Your task to perform on an android device: Go to internet settings Image 0: 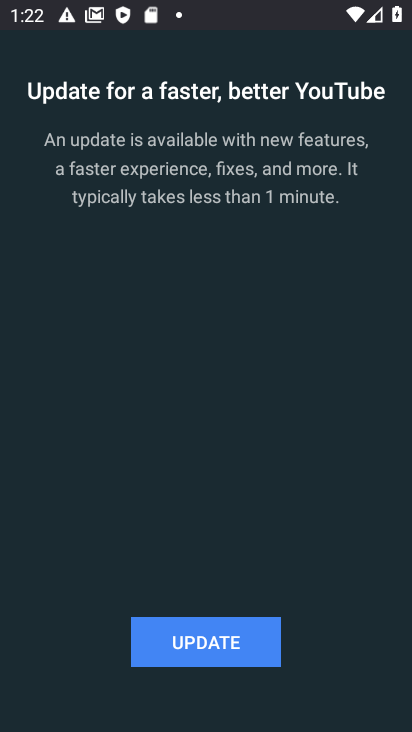
Step 0: press home button
Your task to perform on an android device: Go to internet settings Image 1: 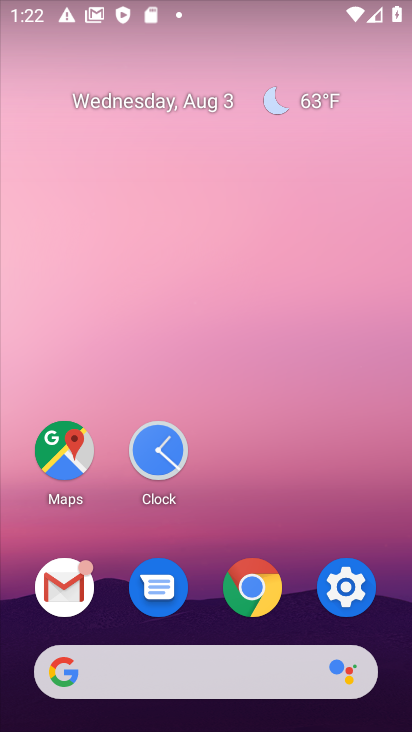
Step 1: click (350, 585)
Your task to perform on an android device: Go to internet settings Image 2: 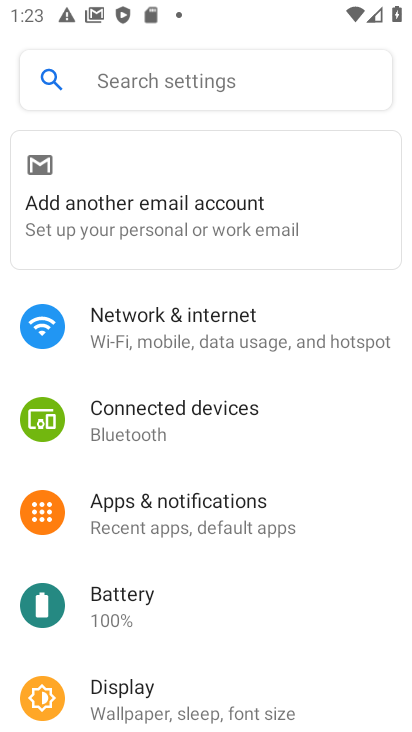
Step 2: click (186, 308)
Your task to perform on an android device: Go to internet settings Image 3: 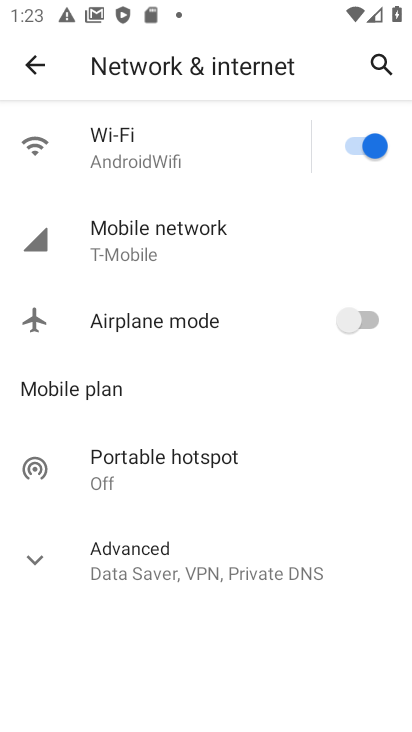
Step 3: click (149, 228)
Your task to perform on an android device: Go to internet settings Image 4: 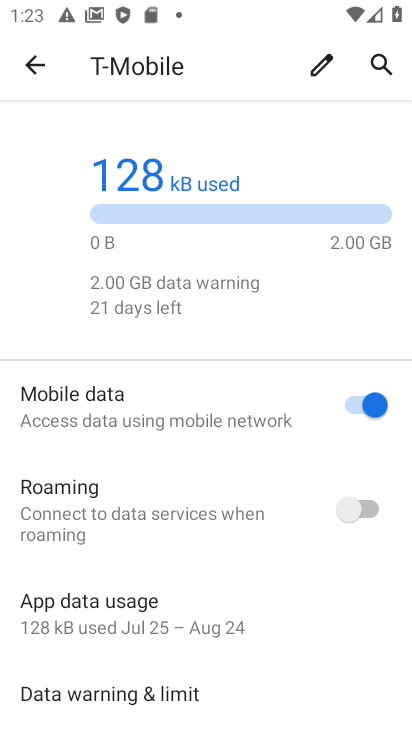
Step 4: task complete